Your task to perform on an android device: Search for beats solo 3 on bestbuy, select the first entry, and add it to the cart. Image 0: 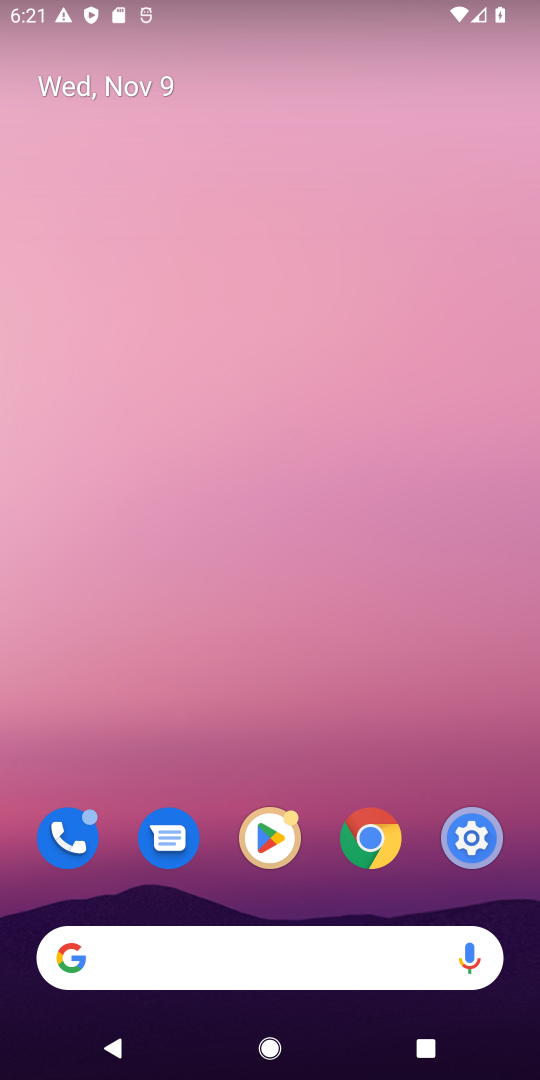
Step 0: click (290, 950)
Your task to perform on an android device: Search for beats solo 3 on bestbuy, select the first entry, and add it to the cart. Image 1: 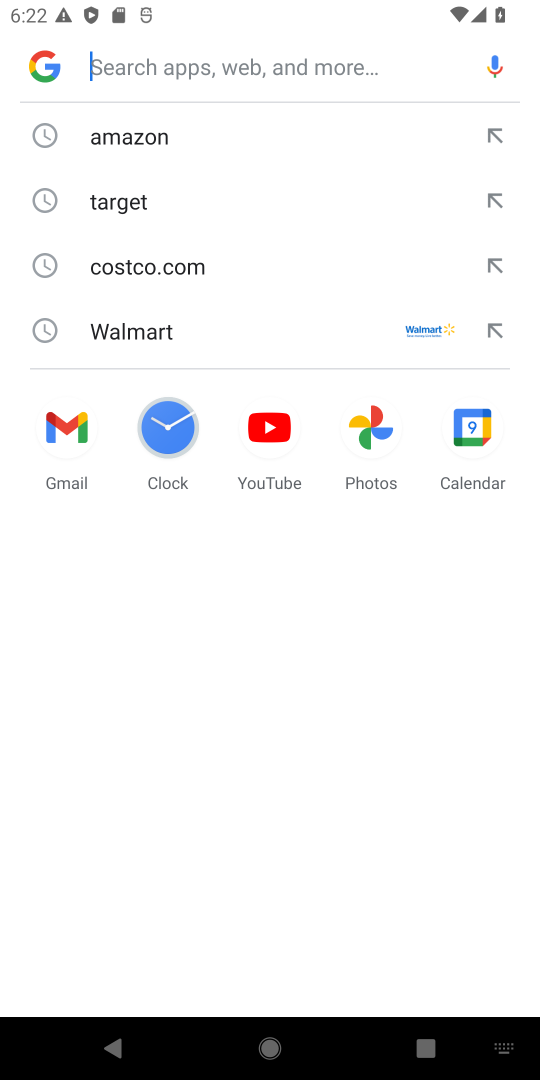
Step 1: type "bestbuy"
Your task to perform on an android device: Search for beats solo 3 on bestbuy, select the first entry, and add it to the cart. Image 2: 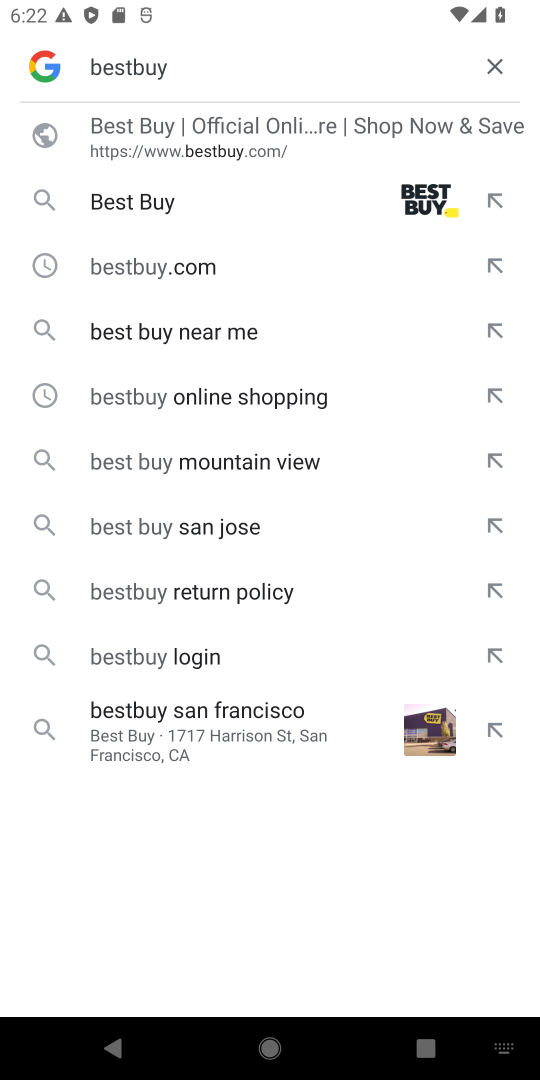
Step 2: click (363, 195)
Your task to perform on an android device: Search for beats solo 3 on bestbuy, select the first entry, and add it to the cart. Image 3: 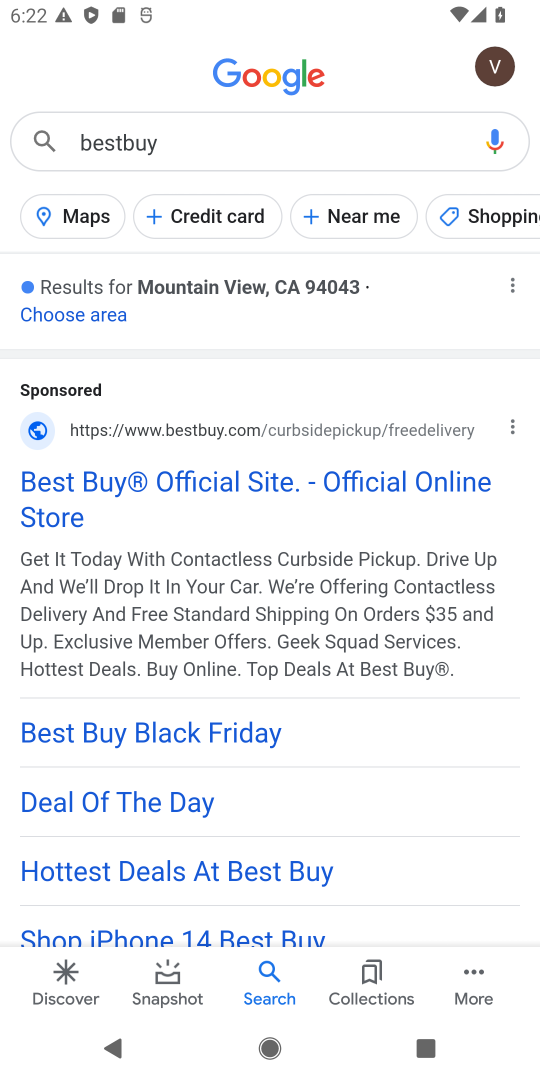
Step 3: click (151, 470)
Your task to perform on an android device: Search for beats solo 3 on bestbuy, select the first entry, and add it to the cart. Image 4: 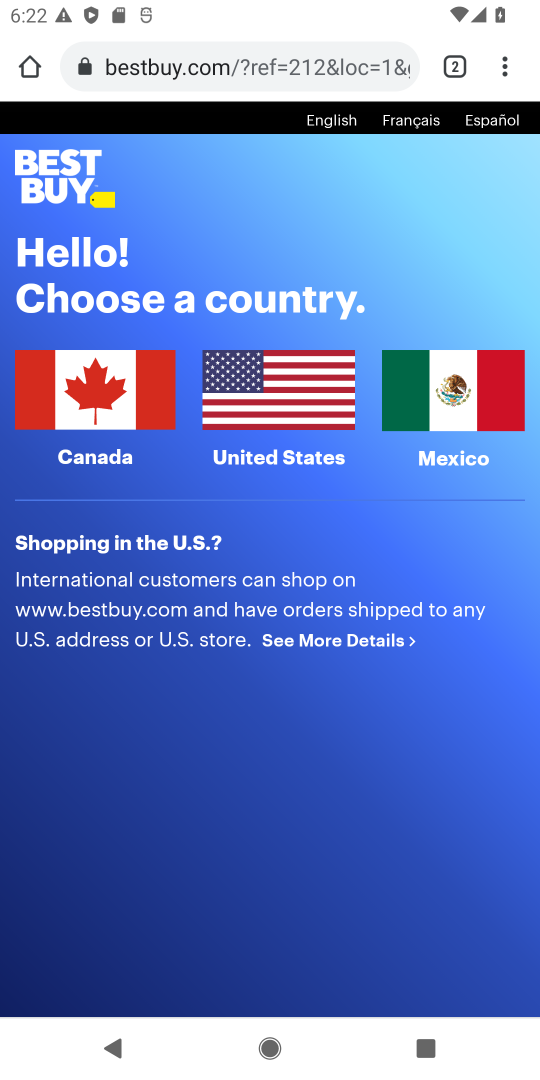
Step 4: click (249, 415)
Your task to perform on an android device: Search for beats solo 3 on bestbuy, select the first entry, and add it to the cart. Image 5: 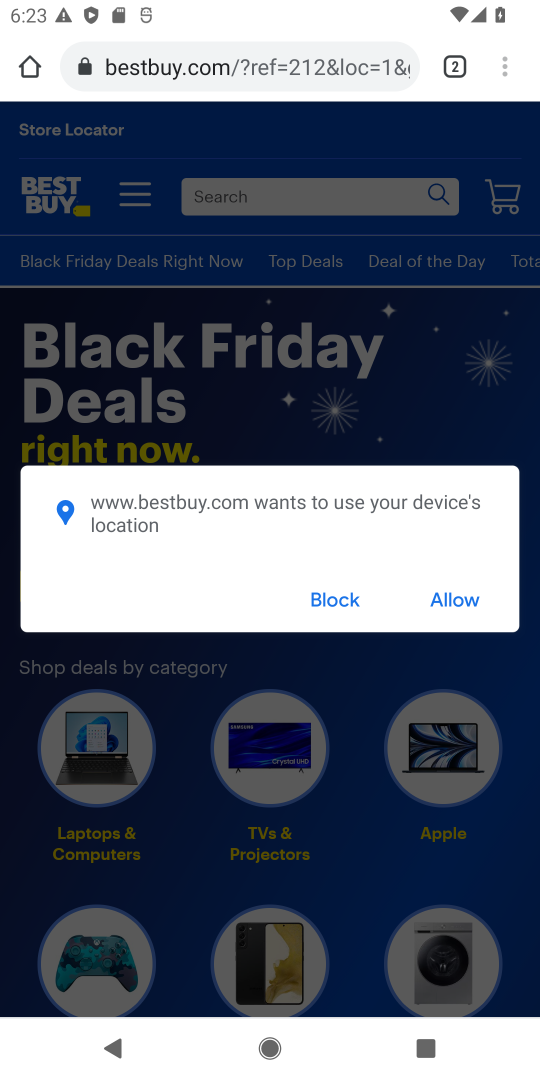
Step 5: click (343, 590)
Your task to perform on an android device: Search for beats solo 3 on bestbuy, select the first entry, and add it to the cart. Image 6: 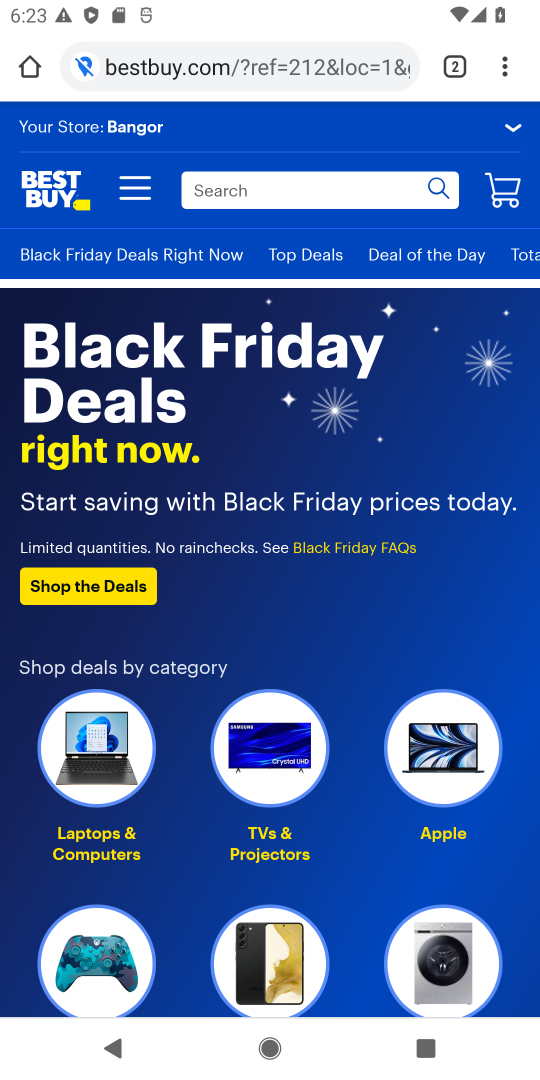
Step 6: click (295, 181)
Your task to perform on an android device: Search for beats solo 3 on bestbuy, select the first entry, and add it to the cart. Image 7: 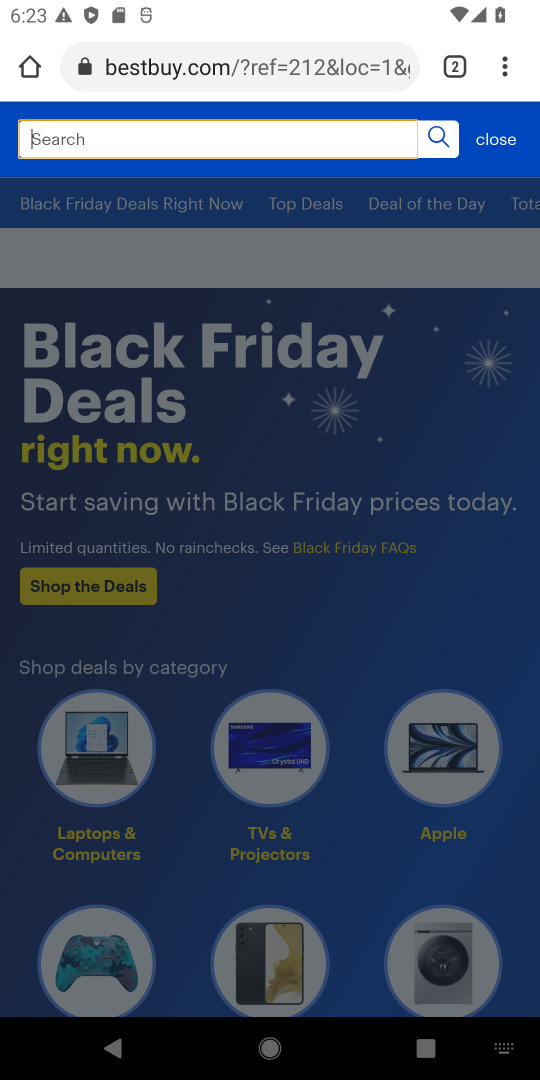
Step 7: type "beats solo 3 "
Your task to perform on an android device: Search for beats solo 3 on bestbuy, select the first entry, and add it to the cart. Image 8: 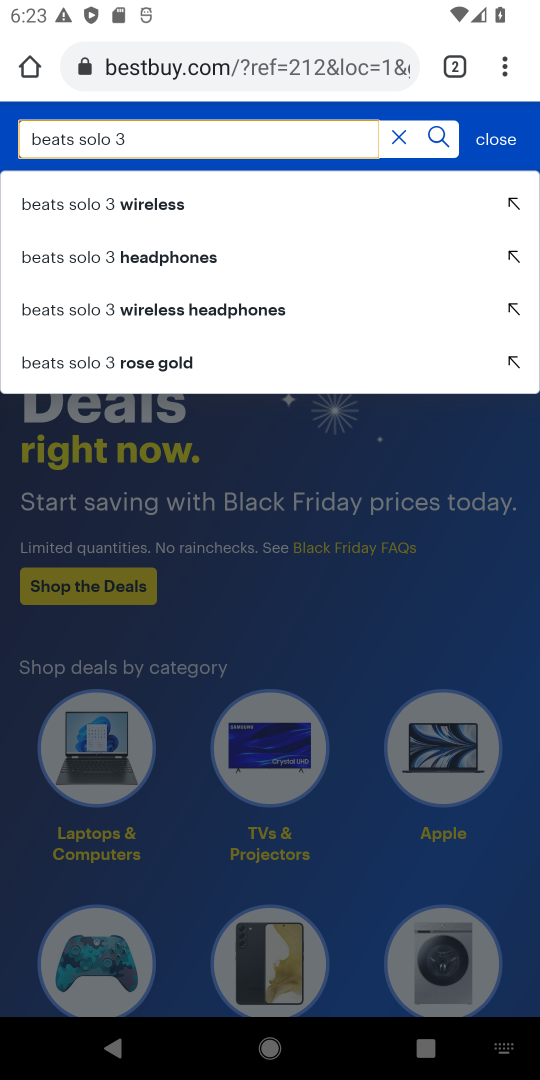
Step 8: click (174, 218)
Your task to perform on an android device: Search for beats solo 3 on bestbuy, select the first entry, and add it to the cart. Image 9: 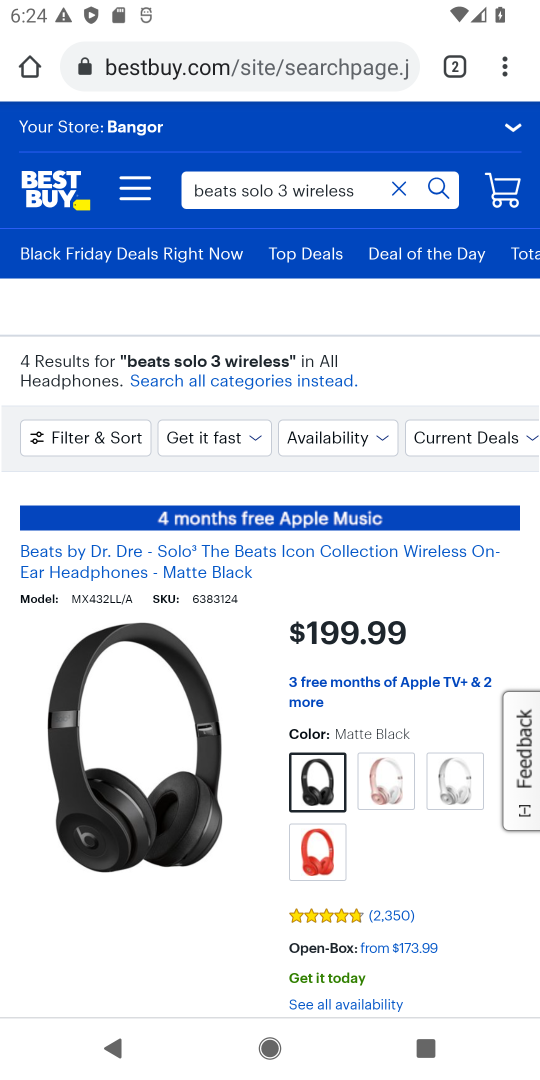
Step 9: click (326, 601)
Your task to perform on an android device: Search for beats solo 3 on bestbuy, select the first entry, and add it to the cart. Image 10: 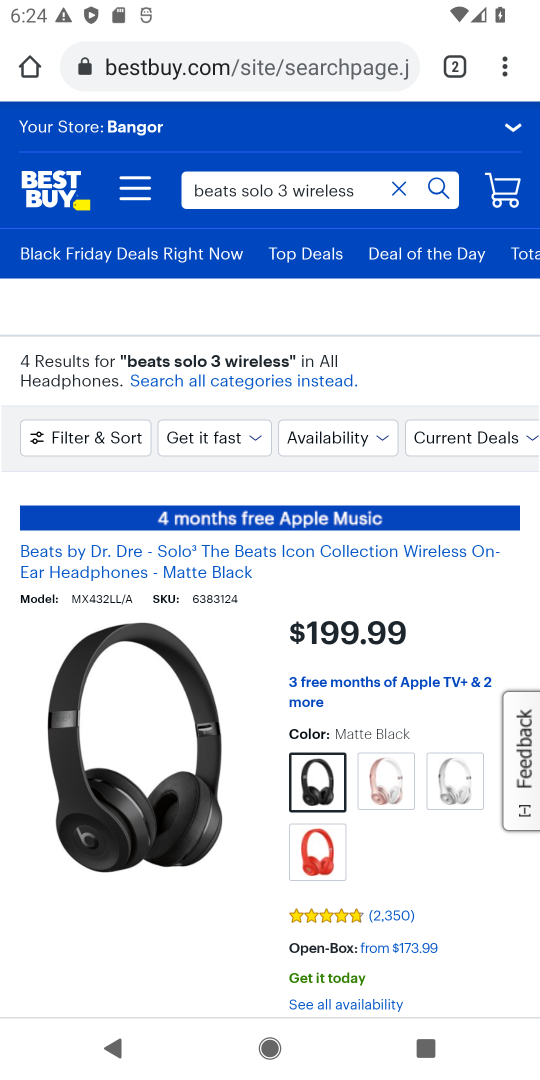
Step 10: drag from (329, 779) to (369, 612)
Your task to perform on an android device: Search for beats solo 3 on bestbuy, select the first entry, and add it to the cart. Image 11: 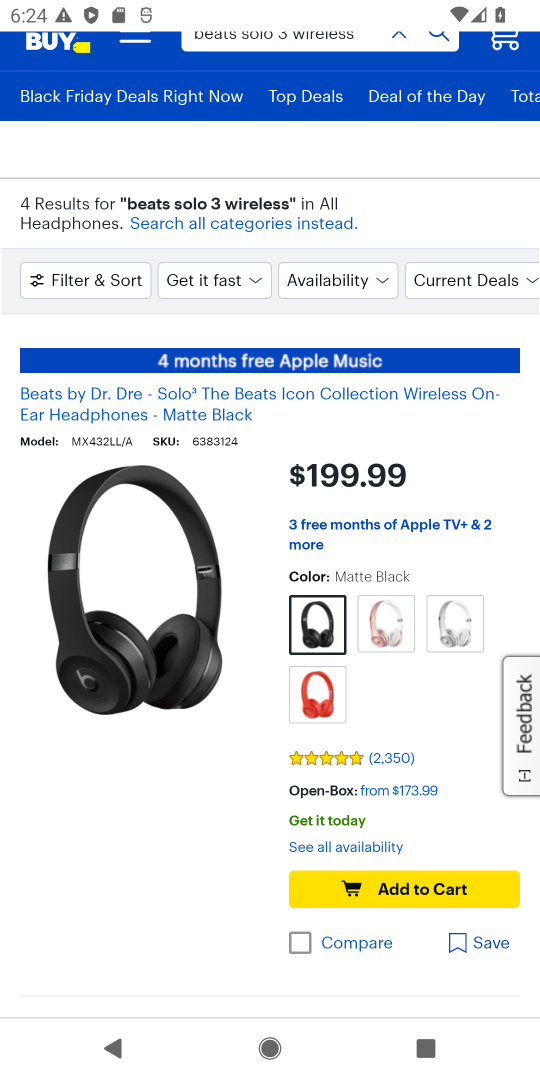
Step 11: click (446, 886)
Your task to perform on an android device: Search for beats solo 3 on bestbuy, select the first entry, and add it to the cart. Image 12: 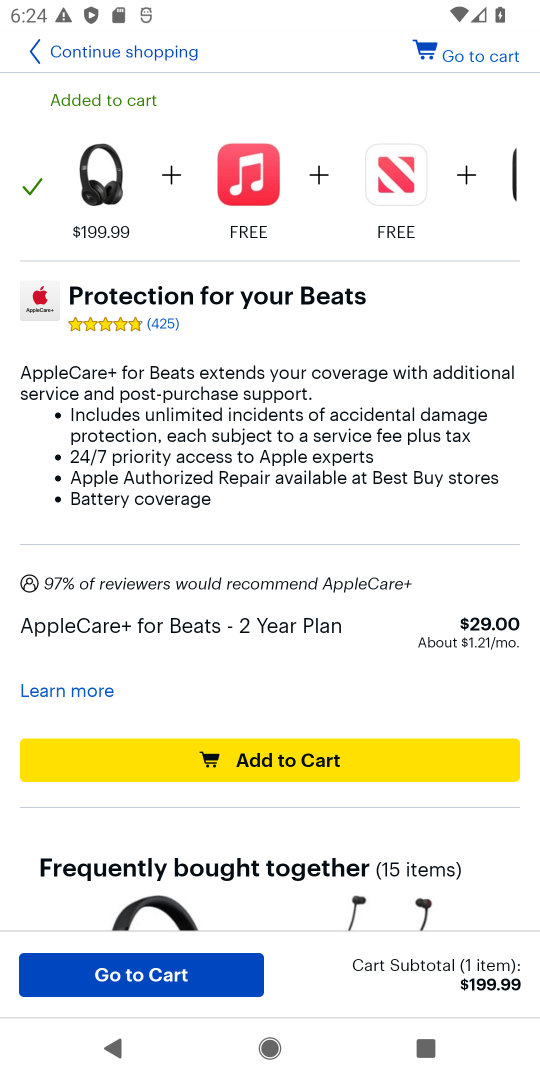
Step 12: click (258, 738)
Your task to perform on an android device: Search for beats solo 3 on bestbuy, select the first entry, and add it to the cart. Image 13: 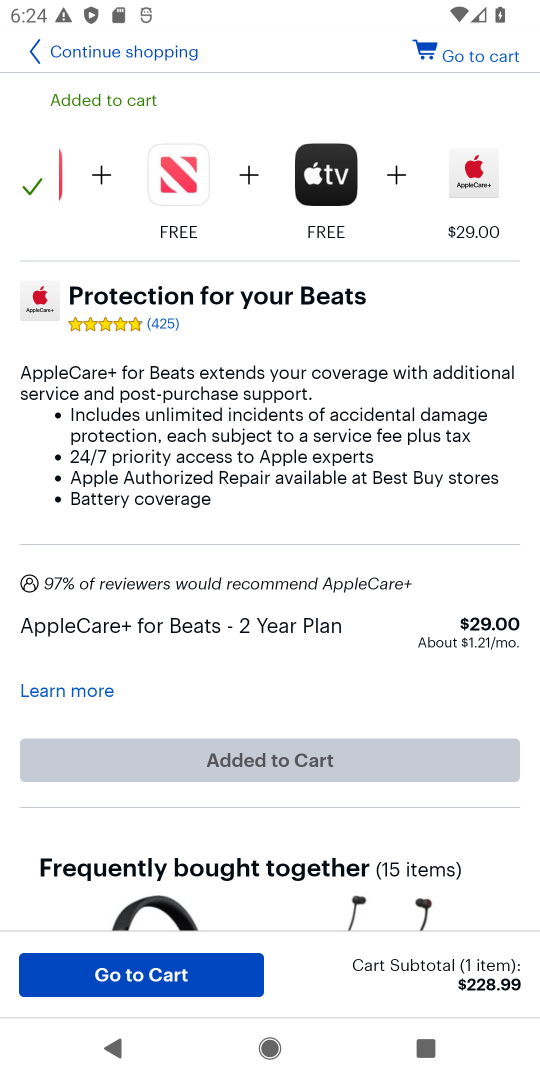
Step 13: task complete